Your task to perform on an android device: Open Reddit.com Image 0: 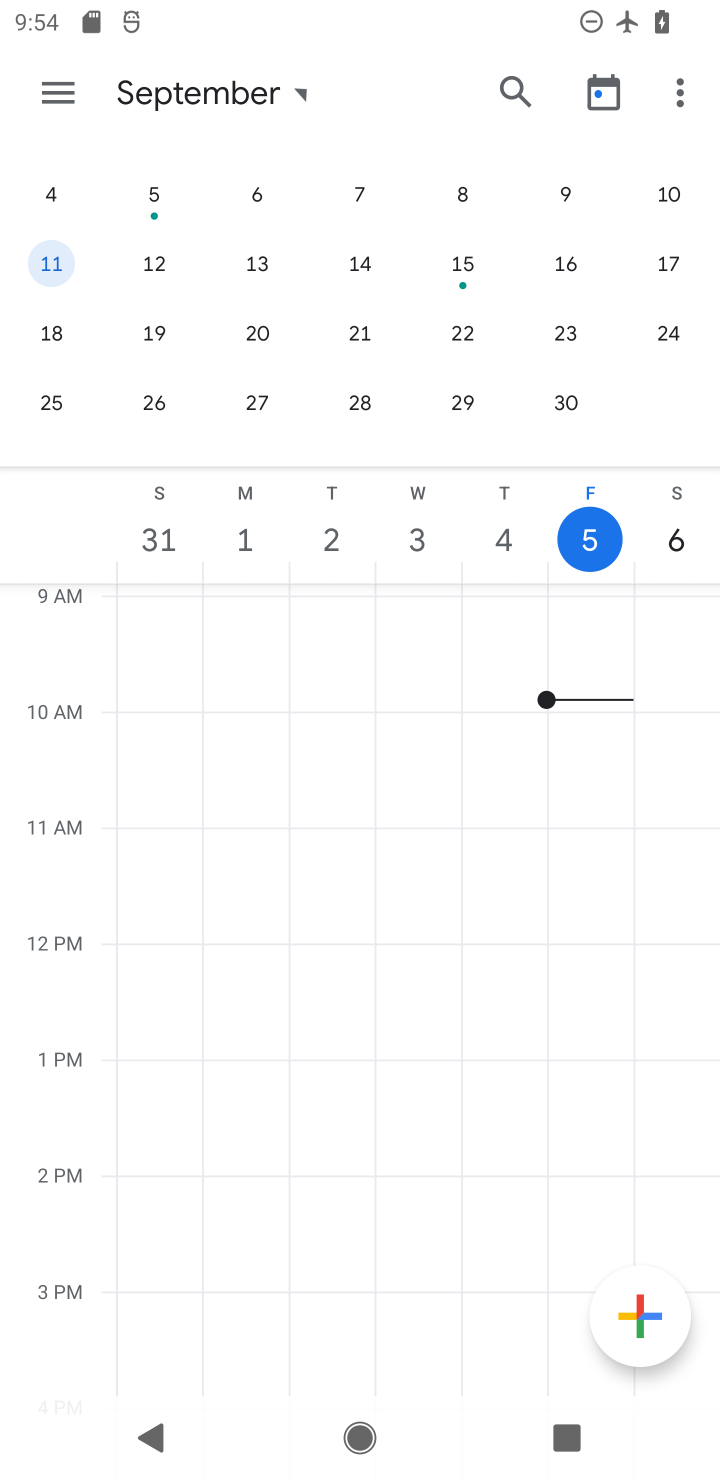
Step 0: press home button
Your task to perform on an android device: Open Reddit.com Image 1: 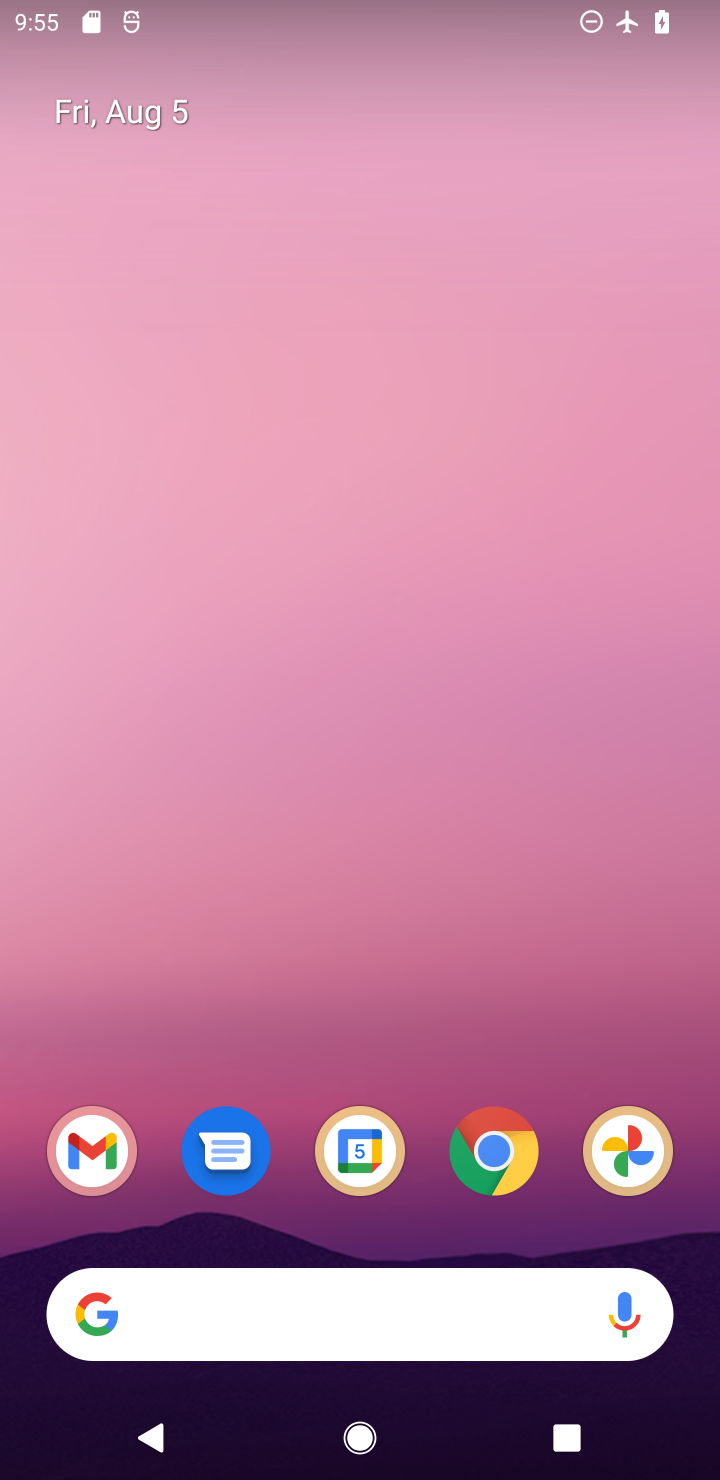
Step 1: click (496, 1162)
Your task to perform on an android device: Open Reddit.com Image 2: 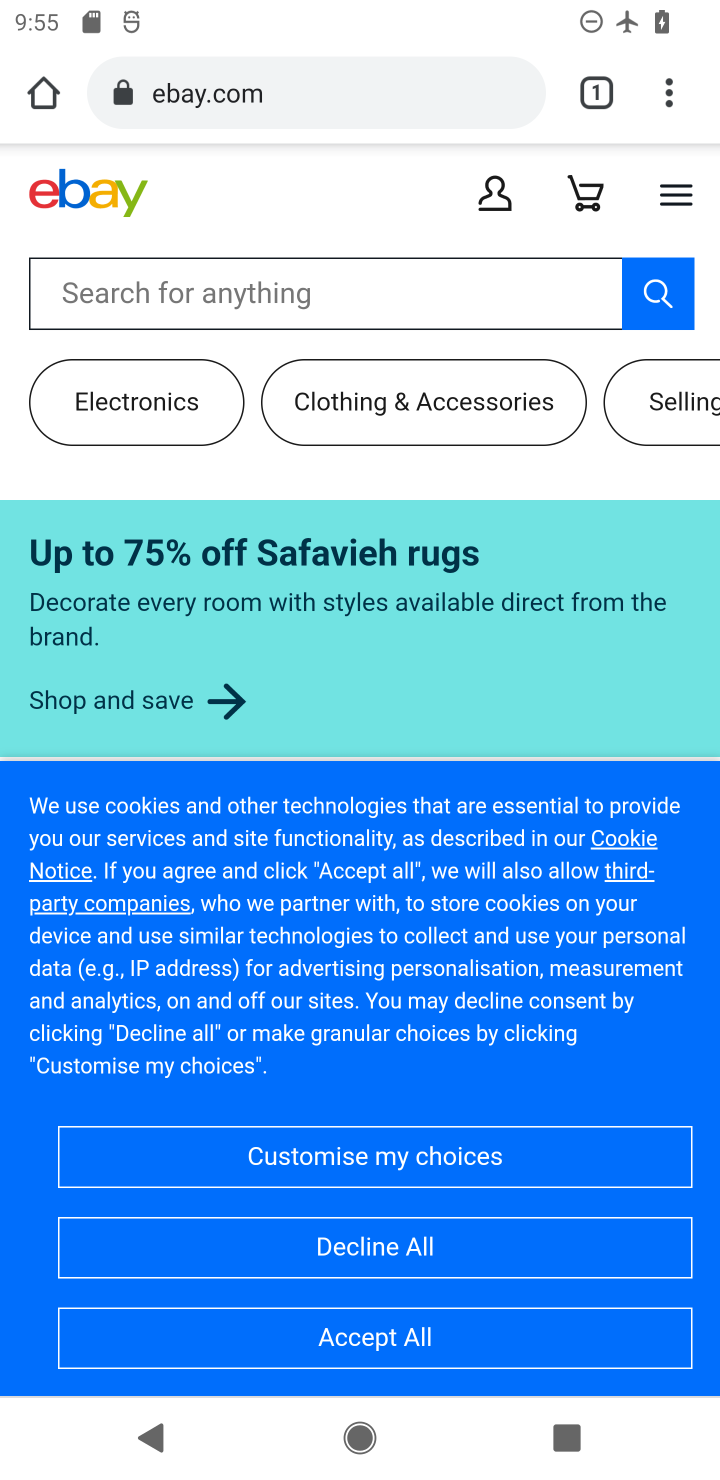
Step 2: click (665, 94)
Your task to perform on an android device: Open Reddit.com Image 3: 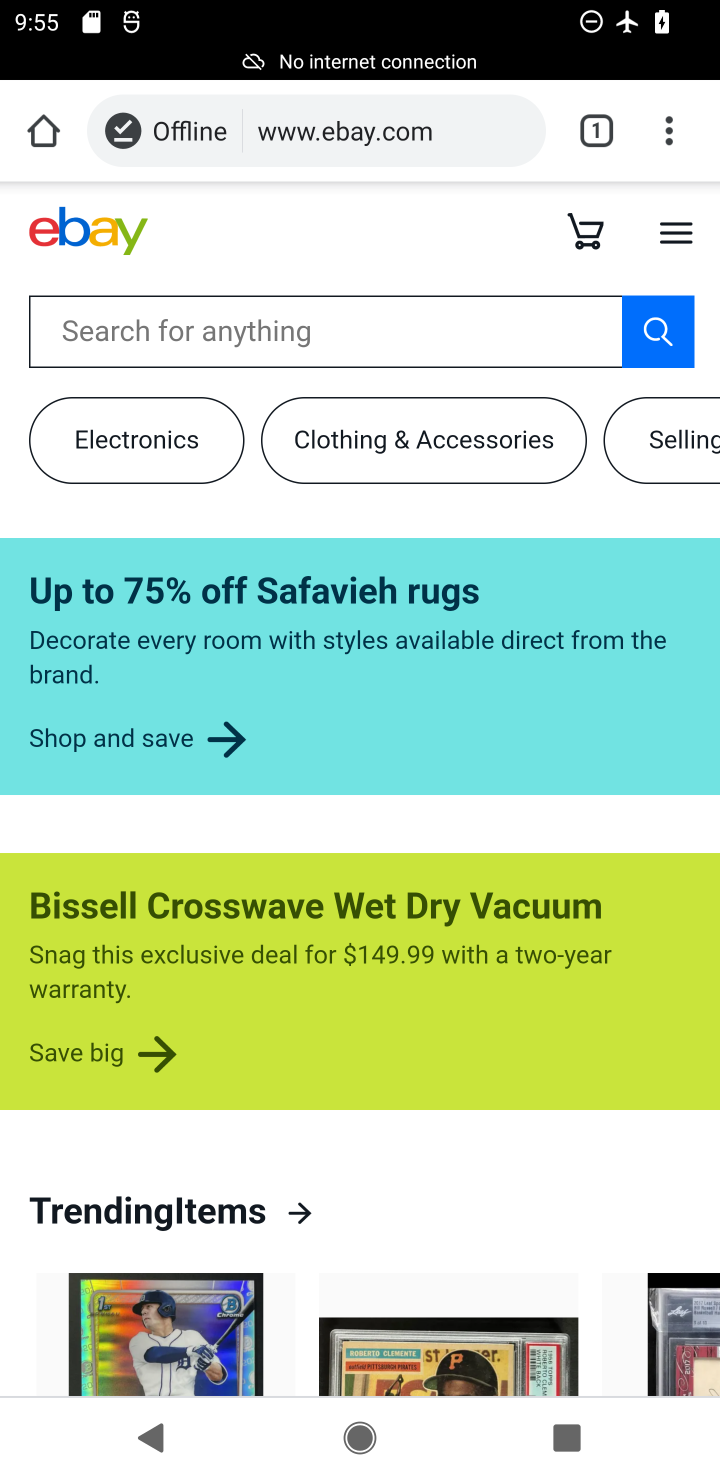
Step 3: task complete